Your task to perform on an android device: toggle improve location accuracy Image 0: 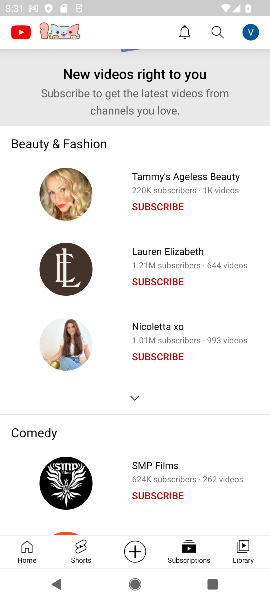
Step 0: press home button
Your task to perform on an android device: toggle improve location accuracy Image 1: 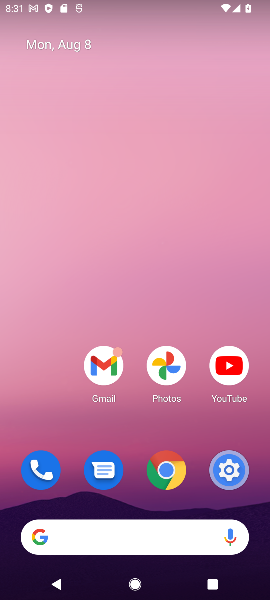
Step 1: click (232, 474)
Your task to perform on an android device: toggle improve location accuracy Image 2: 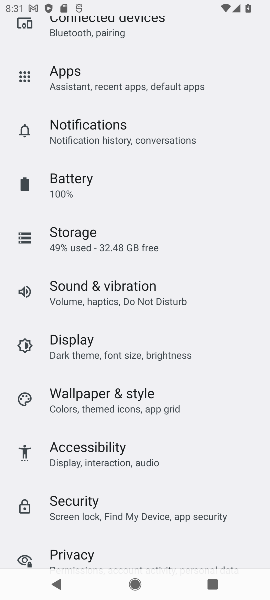
Step 2: drag from (93, 546) to (93, 318)
Your task to perform on an android device: toggle improve location accuracy Image 3: 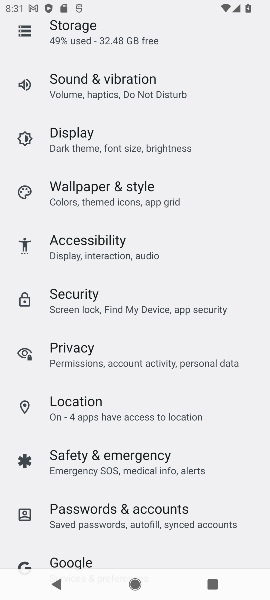
Step 3: click (81, 403)
Your task to perform on an android device: toggle improve location accuracy Image 4: 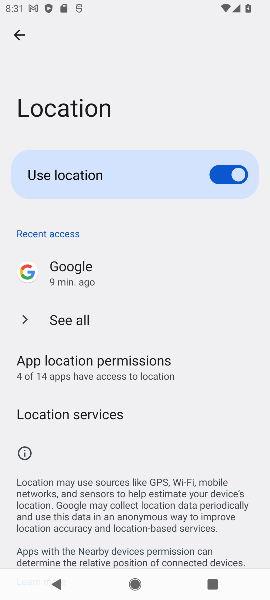
Step 4: click (66, 411)
Your task to perform on an android device: toggle improve location accuracy Image 5: 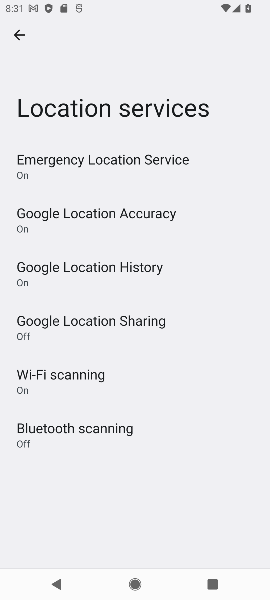
Step 5: click (58, 216)
Your task to perform on an android device: toggle improve location accuracy Image 6: 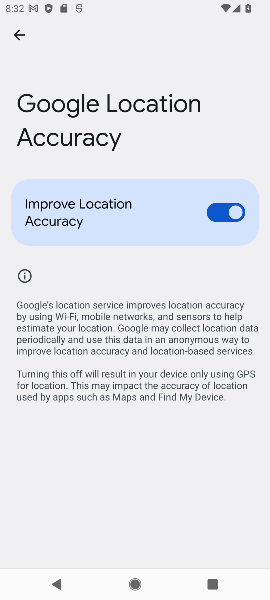
Step 6: click (221, 212)
Your task to perform on an android device: toggle improve location accuracy Image 7: 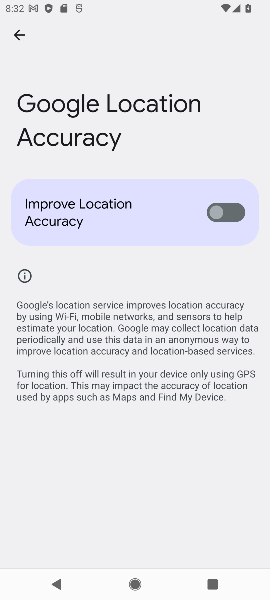
Step 7: task complete